Your task to perform on an android device: Open calendar and show me the first week of next month Image 0: 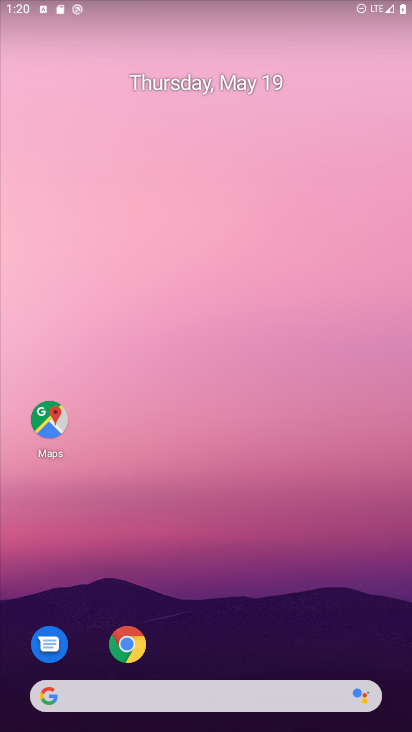
Step 0: drag from (349, 613) to (263, 31)
Your task to perform on an android device: Open calendar and show me the first week of next month Image 1: 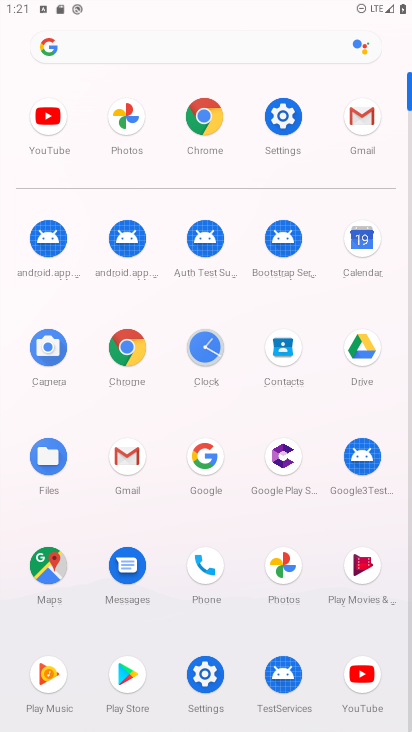
Step 1: click (360, 248)
Your task to perform on an android device: Open calendar and show me the first week of next month Image 2: 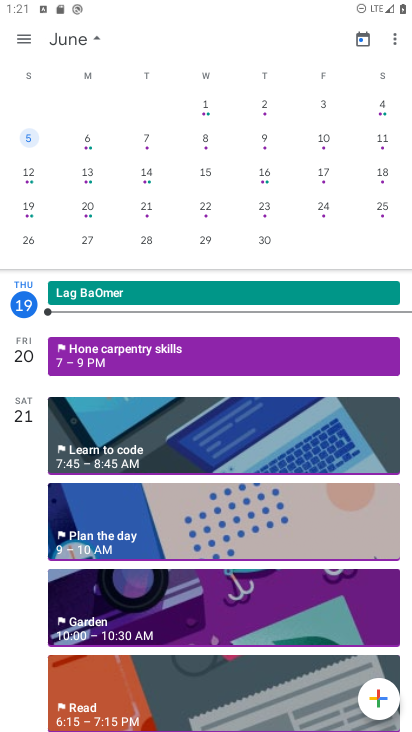
Step 2: drag from (372, 181) to (46, 219)
Your task to perform on an android device: Open calendar and show me the first week of next month Image 3: 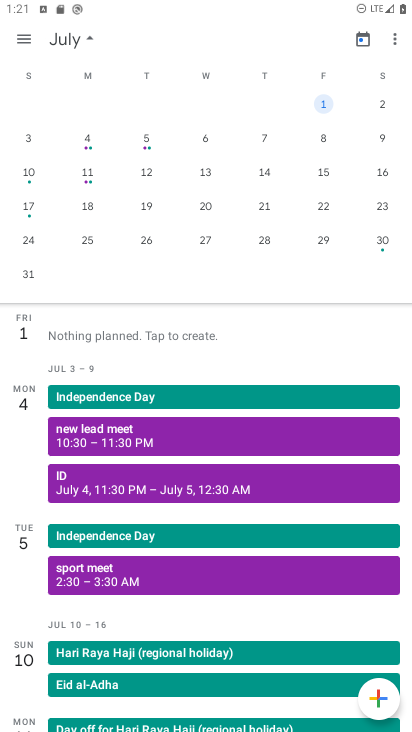
Step 3: click (83, 138)
Your task to perform on an android device: Open calendar and show me the first week of next month Image 4: 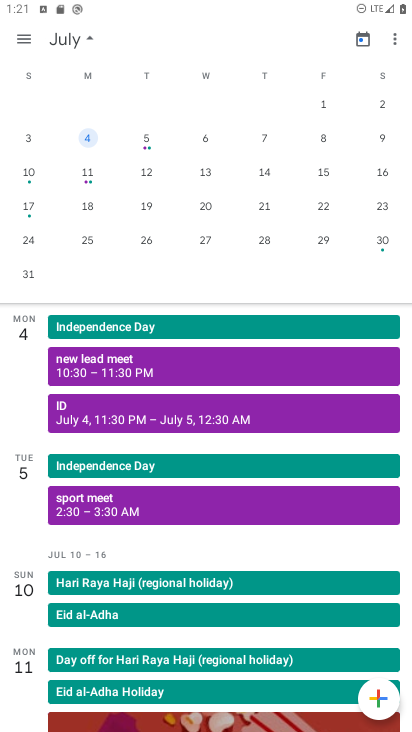
Step 4: task complete